Your task to perform on an android device: Open accessibility settings Image 0: 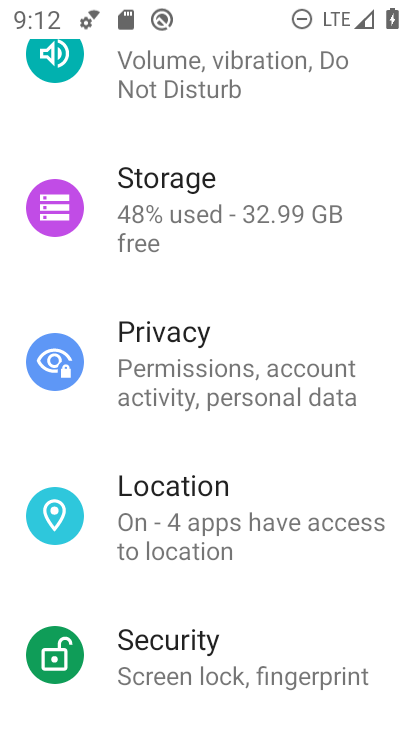
Step 0: drag from (165, 608) to (208, 280)
Your task to perform on an android device: Open accessibility settings Image 1: 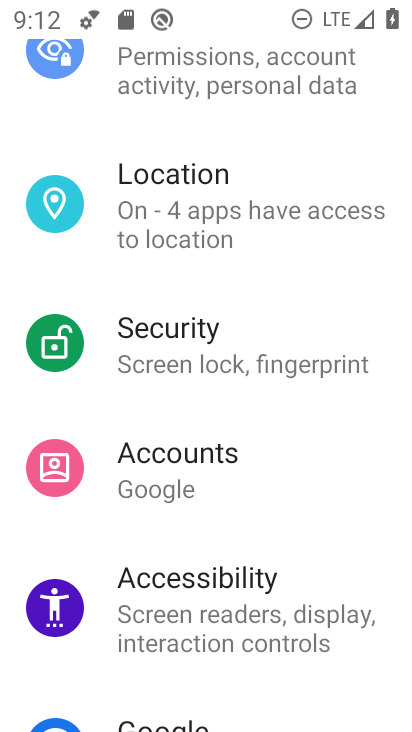
Step 1: click (176, 588)
Your task to perform on an android device: Open accessibility settings Image 2: 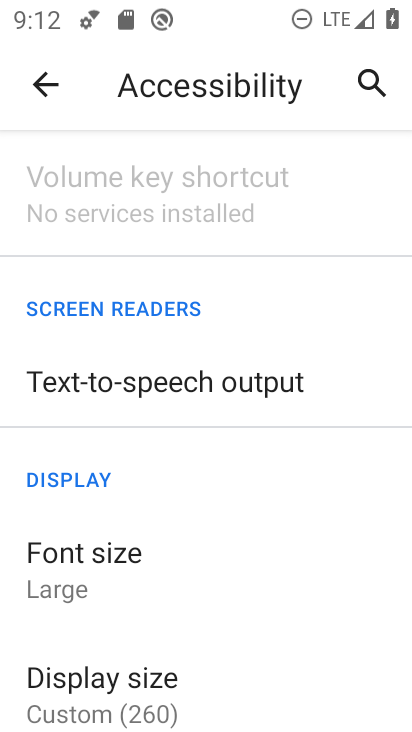
Step 2: task complete